Your task to perform on an android device: turn off airplane mode Image 0: 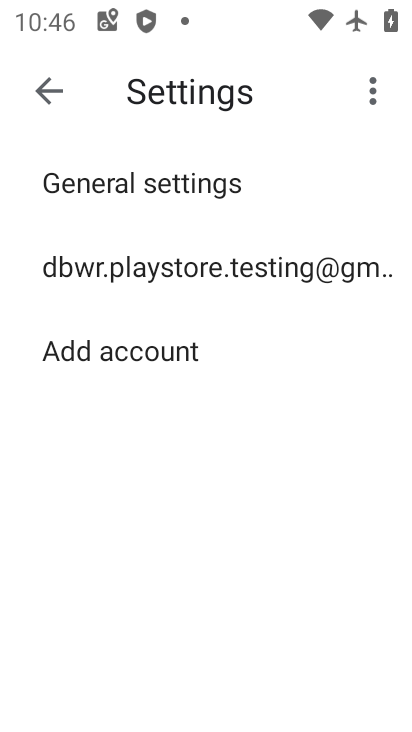
Step 0: click (34, 86)
Your task to perform on an android device: turn off airplane mode Image 1: 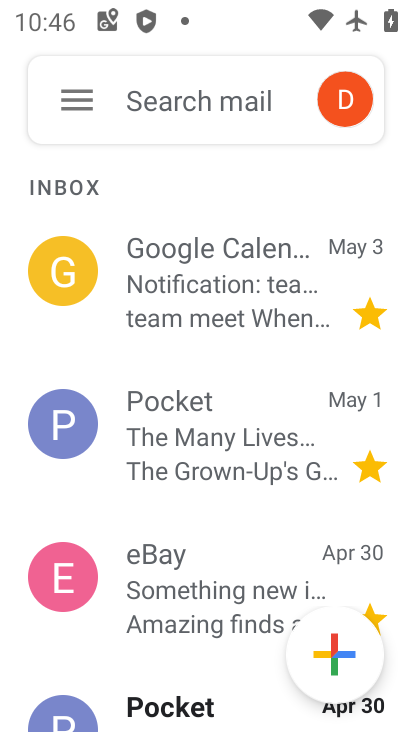
Step 1: press home button
Your task to perform on an android device: turn off airplane mode Image 2: 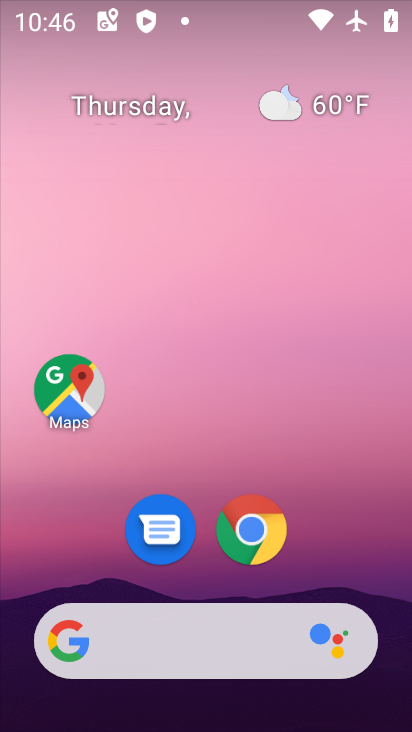
Step 2: drag from (364, 573) to (189, 58)
Your task to perform on an android device: turn off airplane mode Image 3: 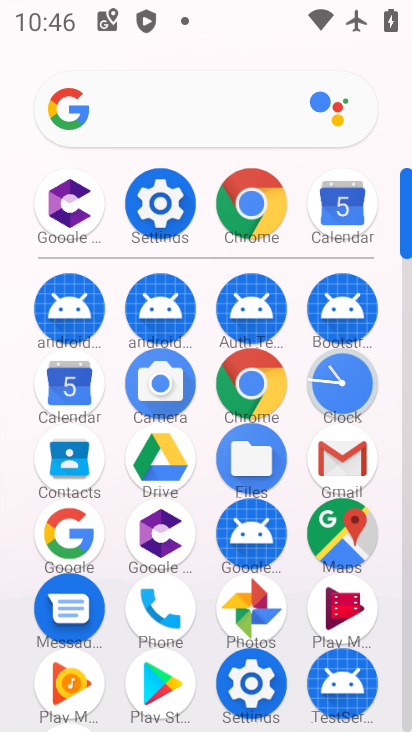
Step 3: click (155, 209)
Your task to perform on an android device: turn off airplane mode Image 4: 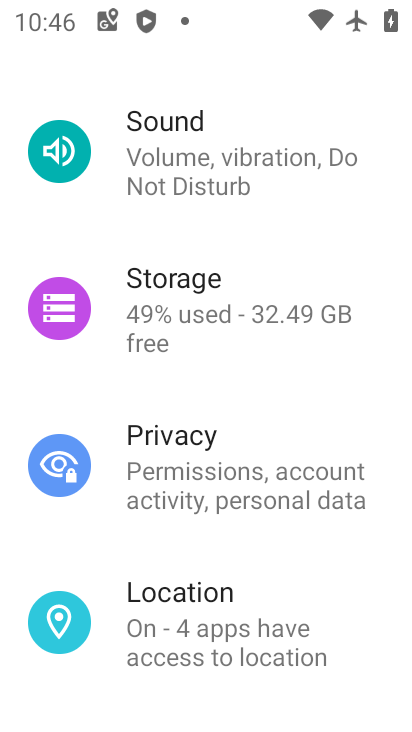
Step 4: drag from (192, 212) to (318, 528)
Your task to perform on an android device: turn off airplane mode Image 5: 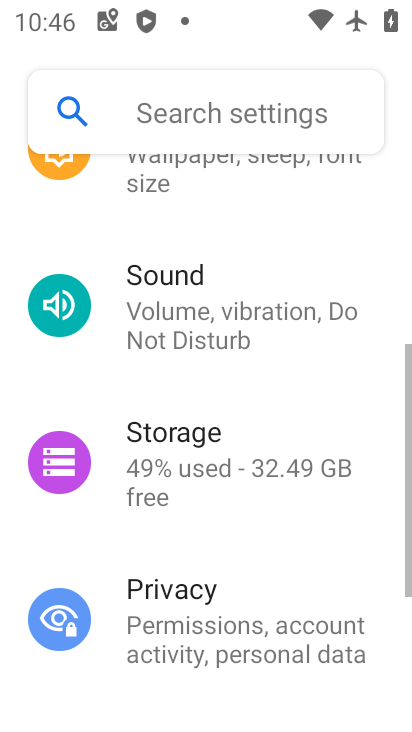
Step 5: drag from (221, 255) to (319, 462)
Your task to perform on an android device: turn off airplane mode Image 6: 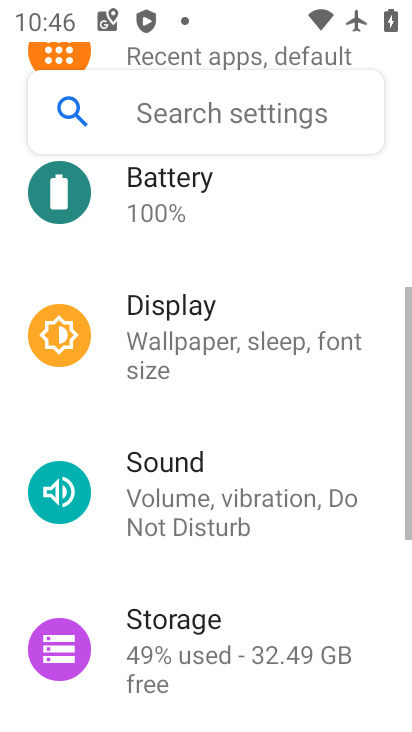
Step 6: drag from (247, 246) to (298, 562)
Your task to perform on an android device: turn off airplane mode Image 7: 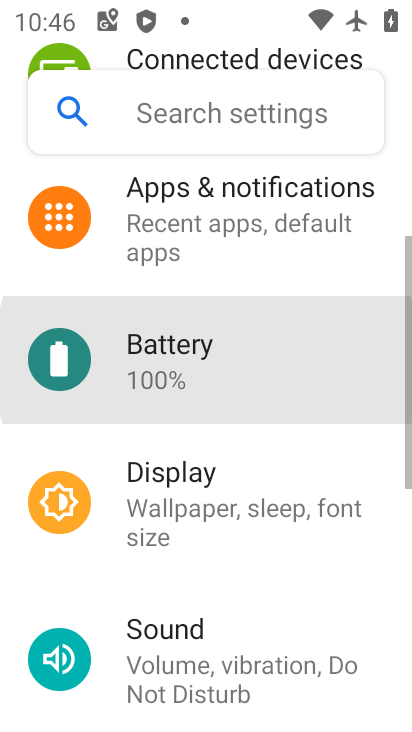
Step 7: drag from (182, 275) to (269, 524)
Your task to perform on an android device: turn off airplane mode Image 8: 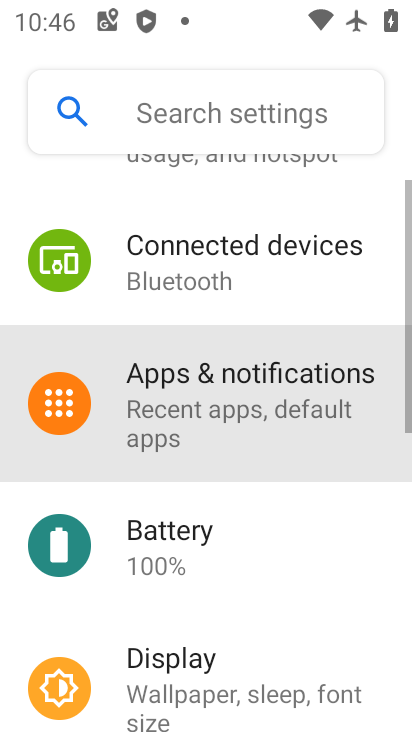
Step 8: drag from (149, 208) to (244, 516)
Your task to perform on an android device: turn off airplane mode Image 9: 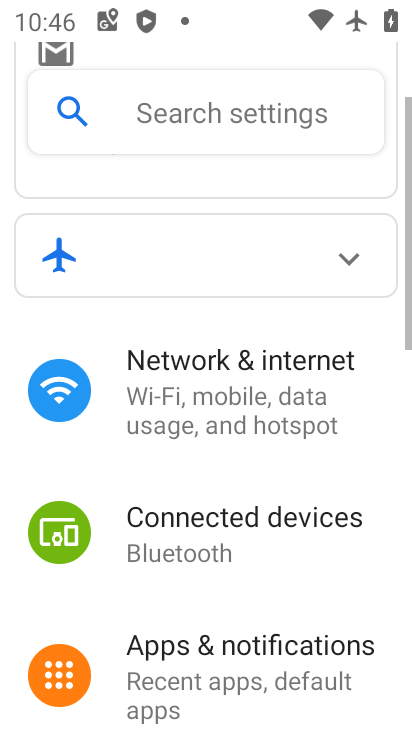
Step 9: drag from (191, 216) to (271, 455)
Your task to perform on an android device: turn off airplane mode Image 10: 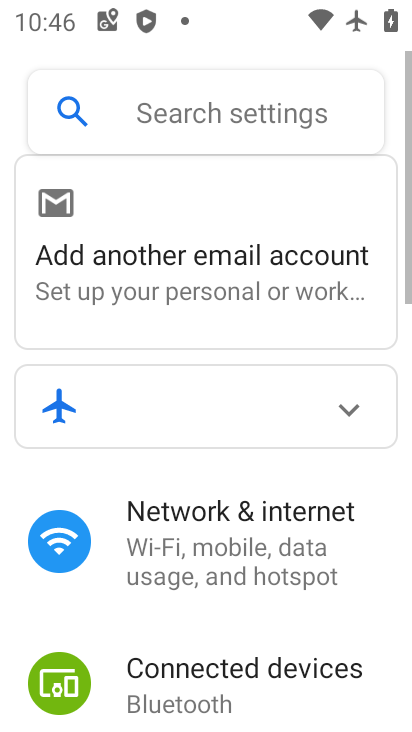
Step 10: drag from (168, 211) to (286, 524)
Your task to perform on an android device: turn off airplane mode Image 11: 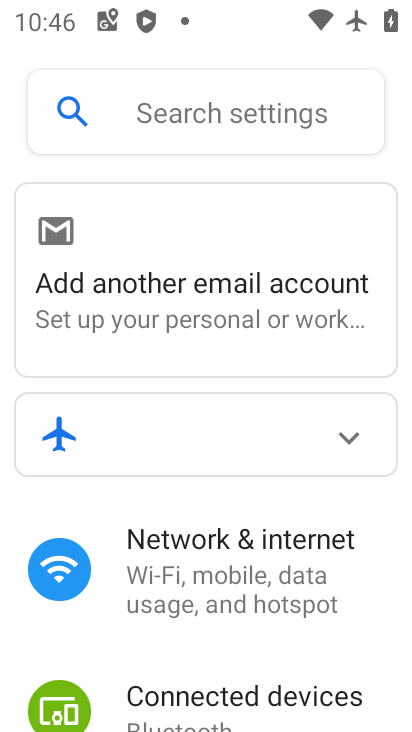
Step 11: click (229, 571)
Your task to perform on an android device: turn off airplane mode Image 12: 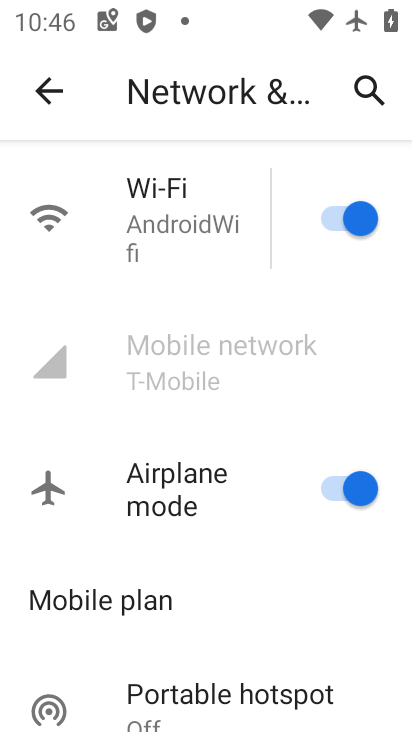
Step 12: click (356, 482)
Your task to perform on an android device: turn off airplane mode Image 13: 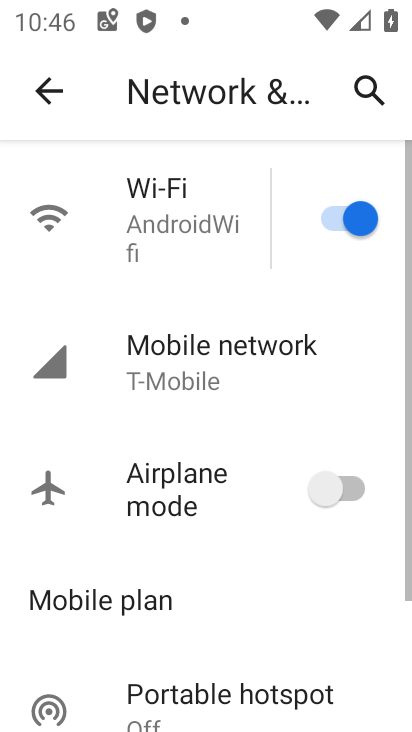
Step 13: task complete